Your task to perform on an android device: Go to eBay Image 0: 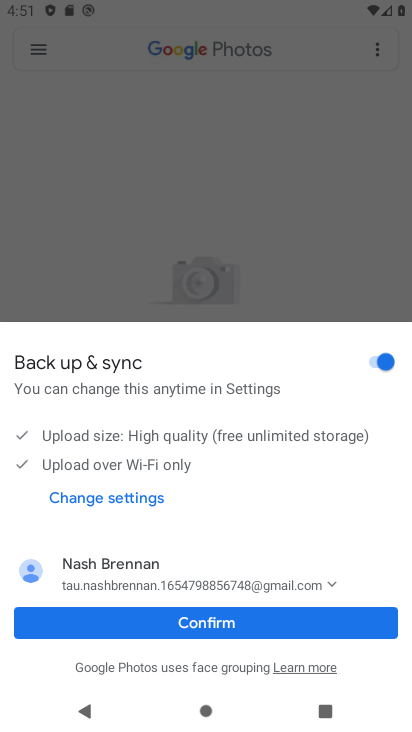
Step 0: press home button
Your task to perform on an android device: Go to eBay Image 1: 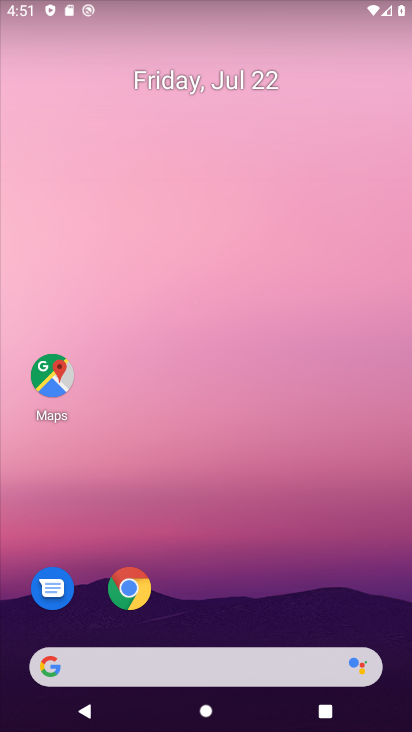
Step 1: click (124, 582)
Your task to perform on an android device: Go to eBay Image 2: 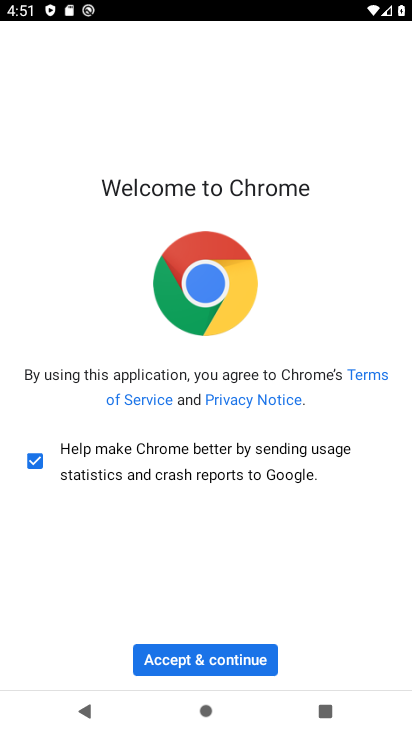
Step 2: click (184, 664)
Your task to perform on an android device: Go to eBay Image 3: 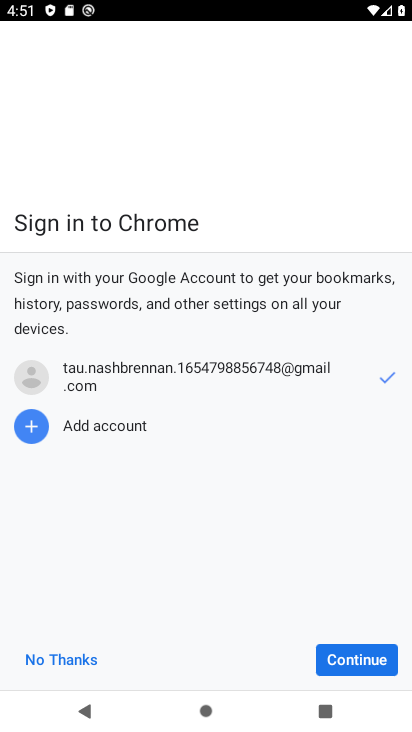
Step 3: click (338, 659)
Your task to perform on an android device: Go to eBay Image 4: 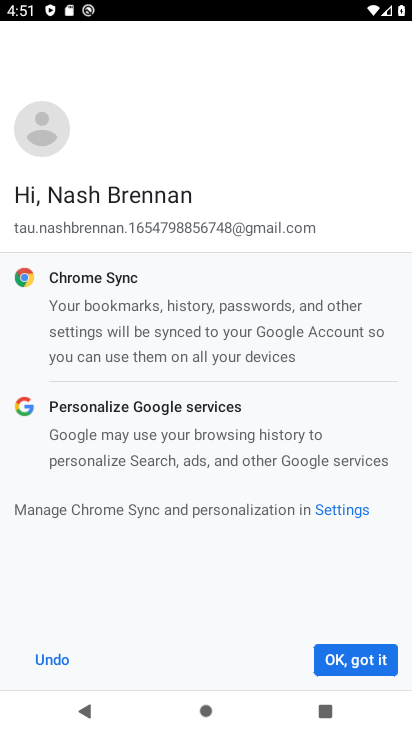
Step 4: click (338, 659)
Your task to perform on an android device: Go to eBay Image 5: 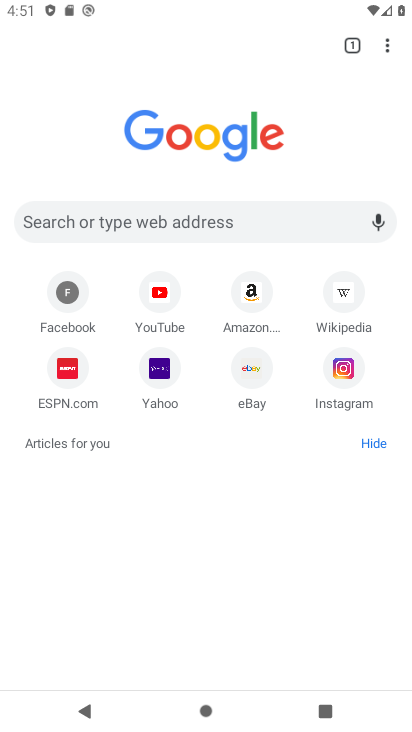
Step 5: click (249, 377)
Your task to perform on an android device: Go to eBay Image 6: 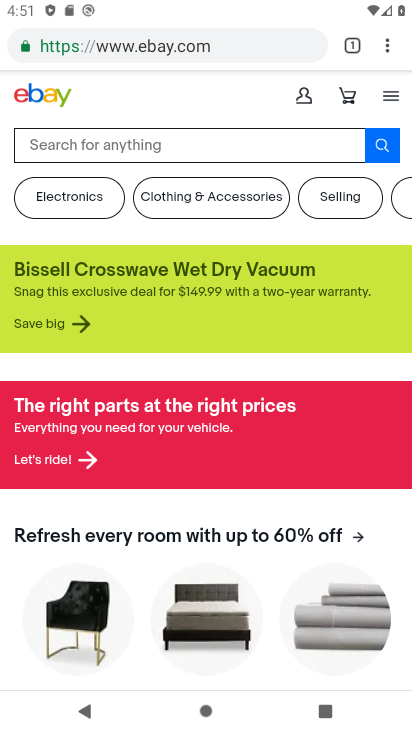
Step 6: task complete